Your task to perform on an android device: allow cookies in the chrome app Image 0: 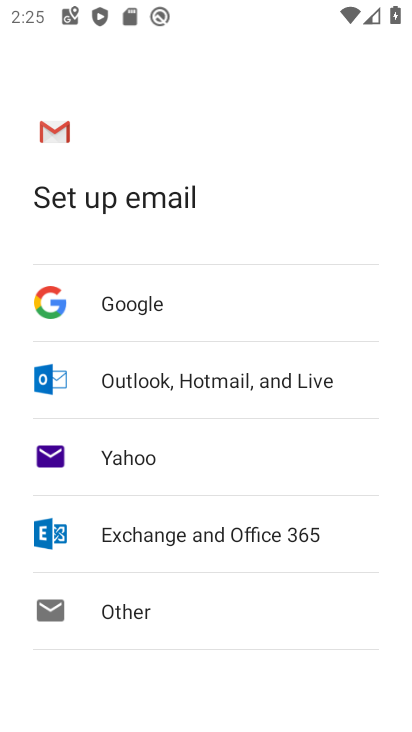
Step 0: press home button
Your task to perform on an android device: allow cookies in the chrome app Image 1: 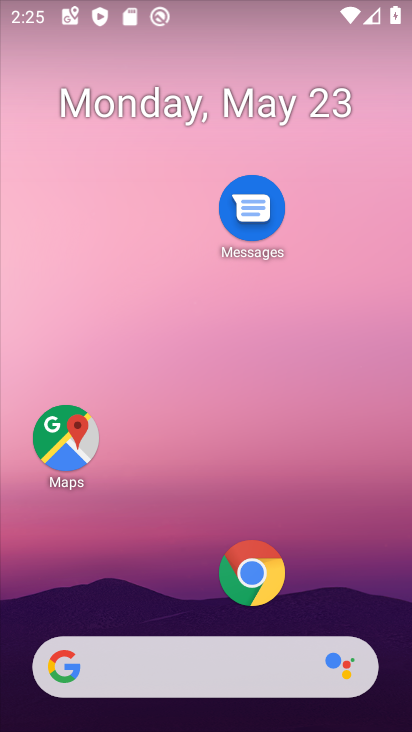
Step 1: drag from (274, 648) to (219, 45)
Your task to perform on an android device: allow cookies in the chrome app Image 2: 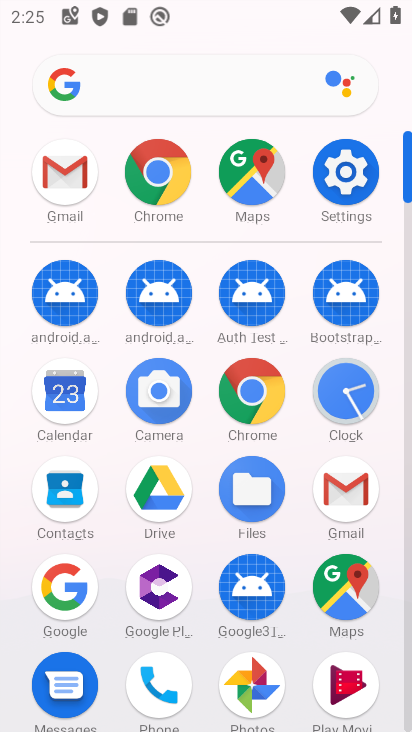
Step 2: click (250, 387)
Your task to perform on an android device: allow cookies in the chrome app Image 3: 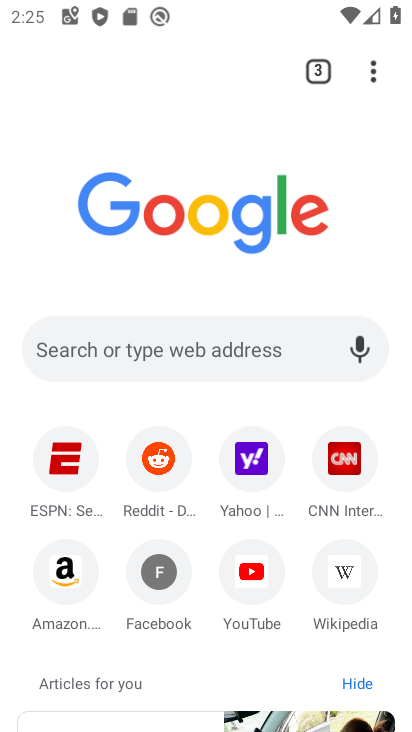
Step 3: drag from (376, 64) to (173, 606)
Your task to perform on an android device: allow cookies in the chrome app Image 4: 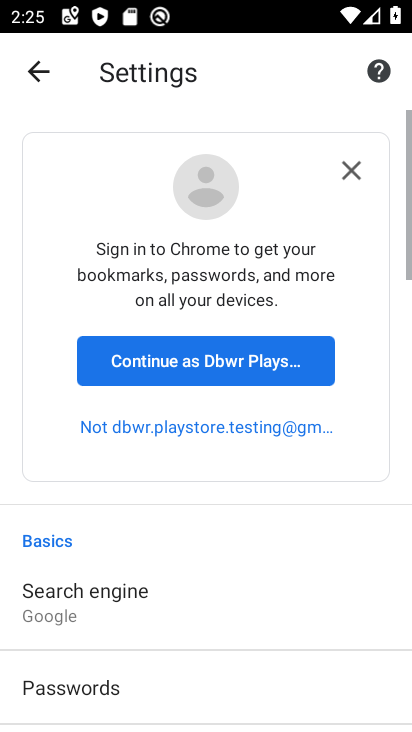
Step 4: drag from (240, 647) to (255, 56)
Your task to perform on an android device: allow cookies in the chrome app Image 5: 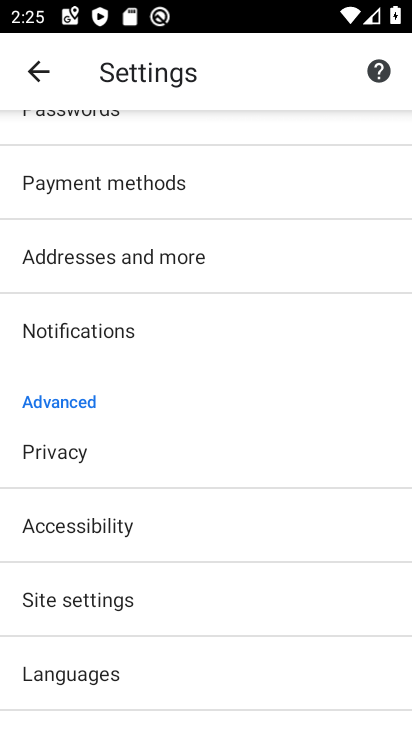
Step 5: click (139, 594)
Your task to perform on an android device: allow cookies in the chrome app Image 6: 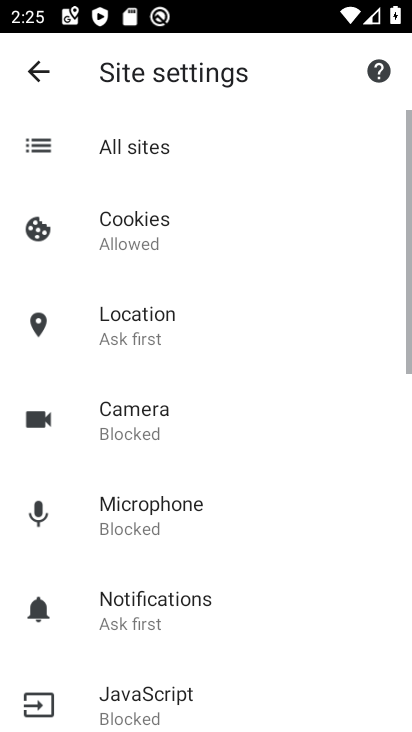
Step 6: click (137, 241)
Your task to perform on an android device: allow cookies in the chrome app Image 7: 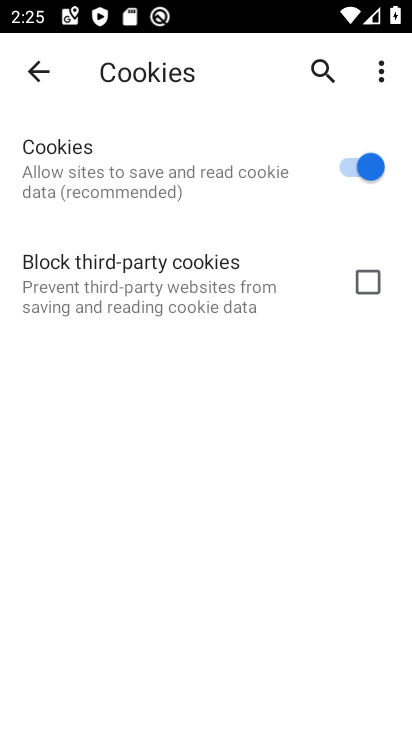
Step 7: task complete